Your task to perform on an android device: Turn on the flashlight Image 0: 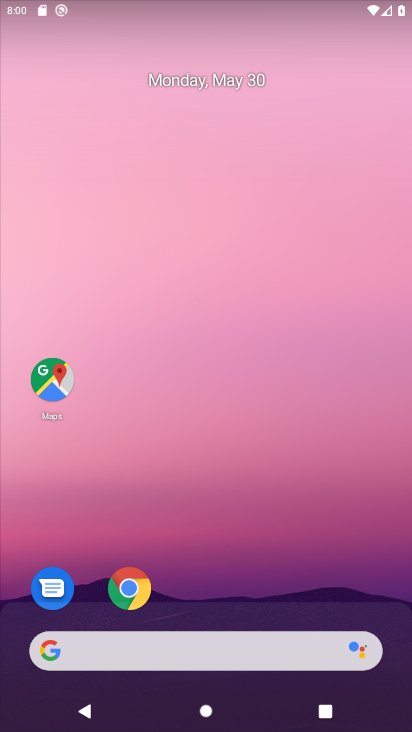
Step 0: drag from (303, 605) to (222, 2)
Your task to perform on an android device: Turn on the flashlight Image 1: 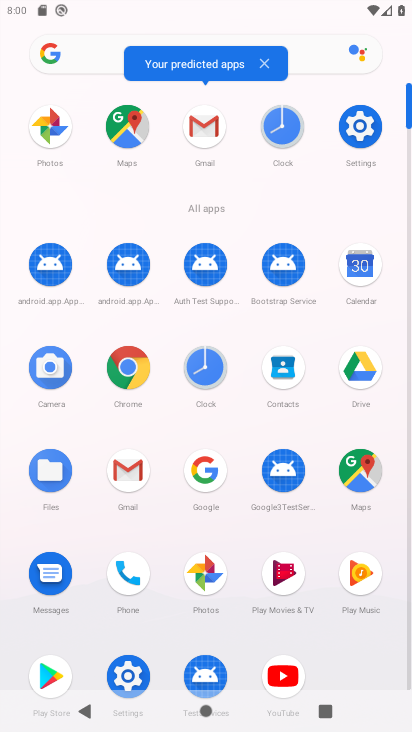
Step 1: click (358, 127)
Your task to perform on an android device: Turn on the flashlight Image 2: 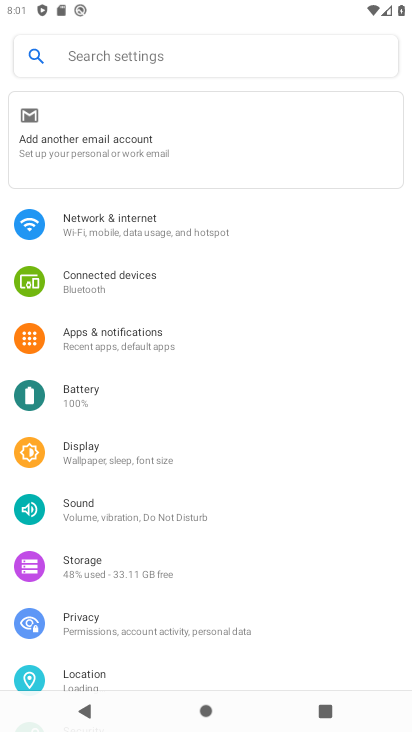
Step 2: task complete